Your task to perform on an android device: open wifi settings Image 0: 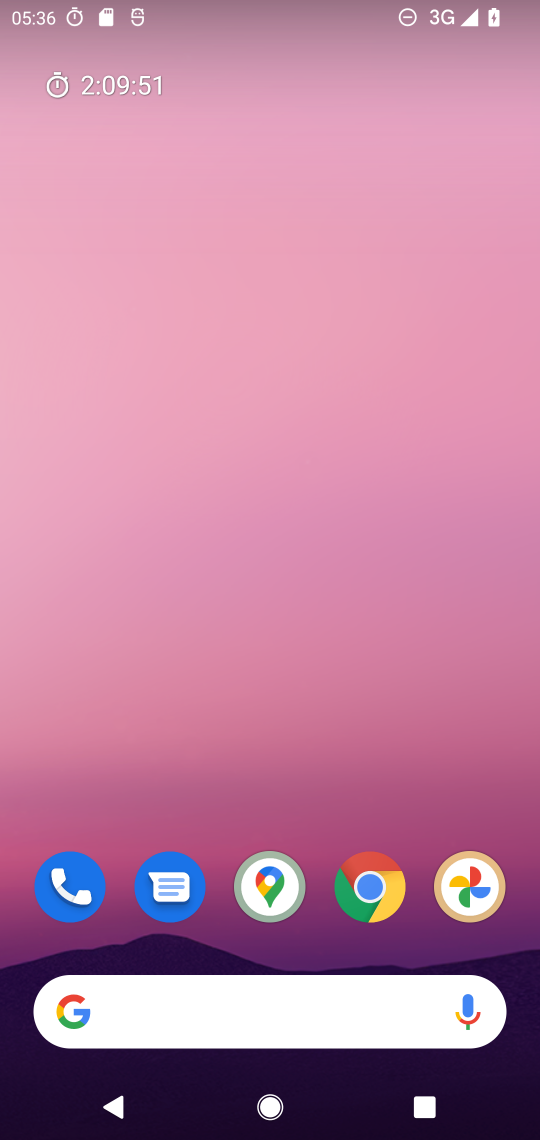
Step 0: press home button
Your task to perform on an android device: open wifi settings Image 1: 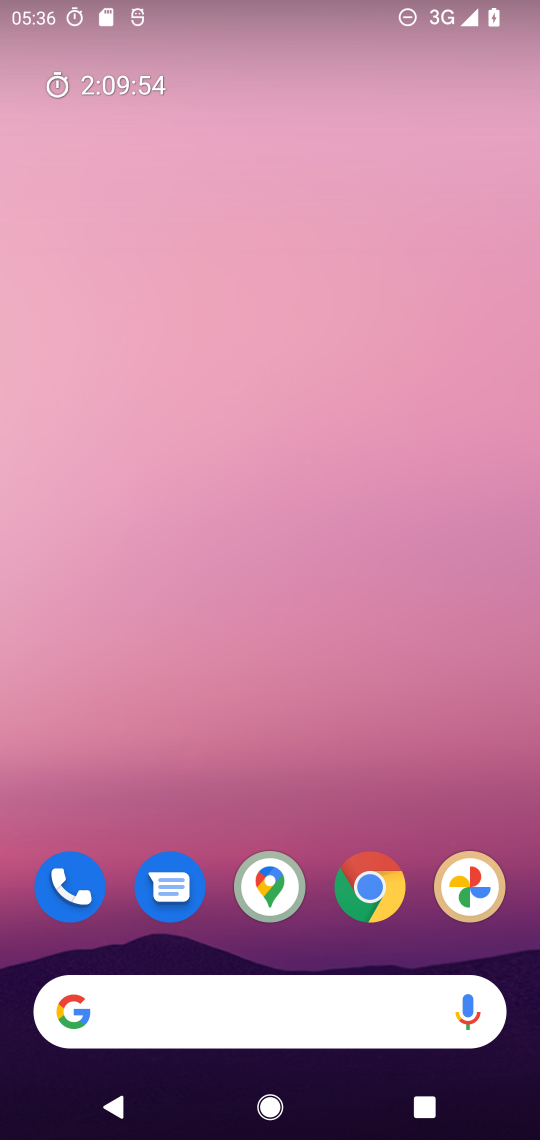
Step 1: drag from (424, 814) to (438, 333)
Your task to perform on an android device: open wifi settings Image 2: 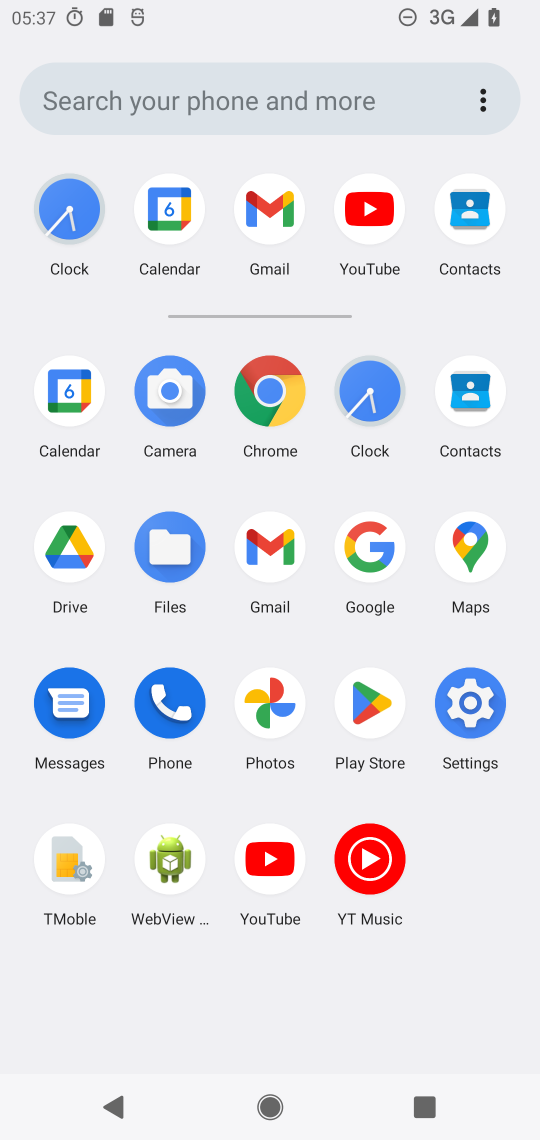
Step 2: click (455, 712)
Your task to perform on an android device: open wifi settings Image 3: 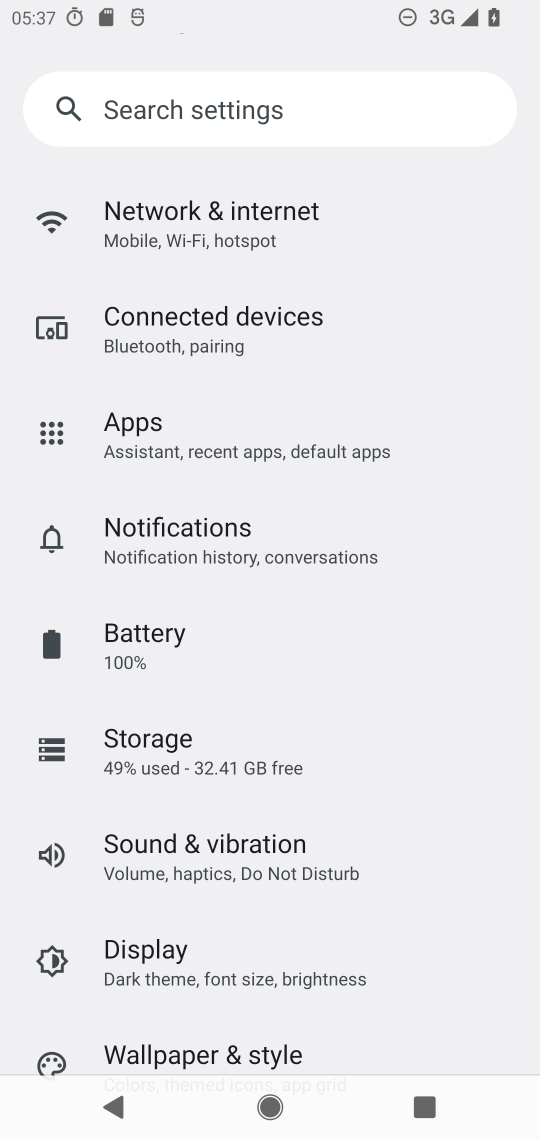
Step 3: click (346, 205)
Your task to perform on an android device: open wifi settings Image 4: 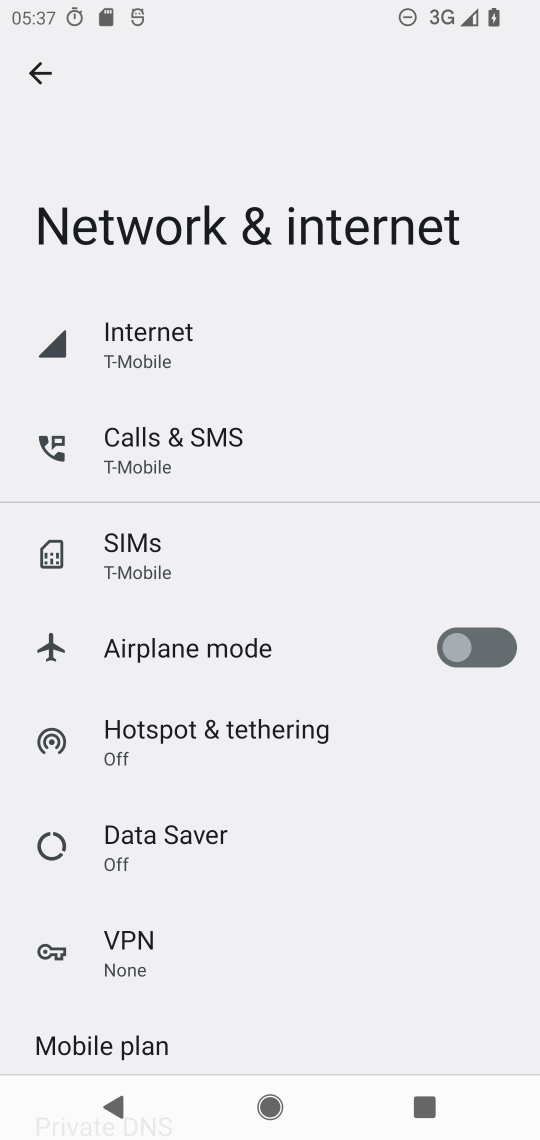
Step 4: click (171, 353)
Your task to perform on an android device: open wifi settings Image 5: 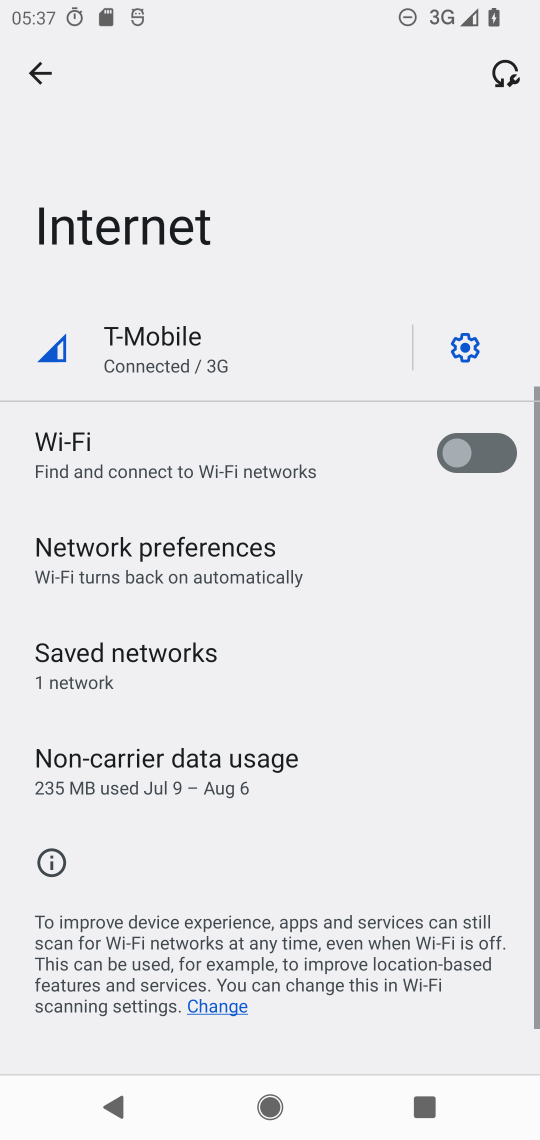
Step 5: task complete